Your task to perform on an android device: delete a single message in the gmail app Image 0: 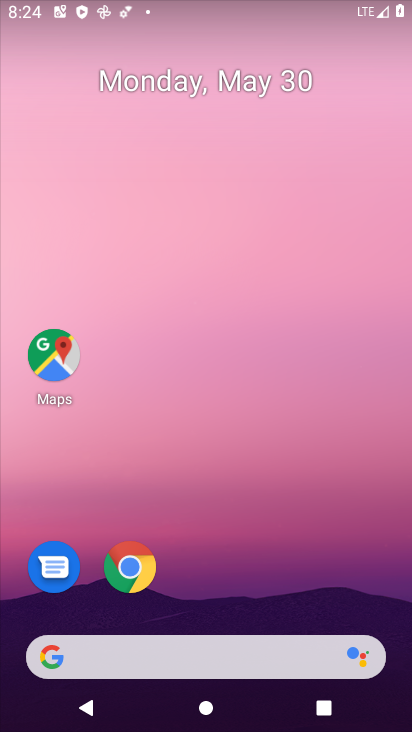
Step 0: drag from (332, 608) to (245, 50)
Your task to perform on an android device: delete a single message in the gmail app Image 1: 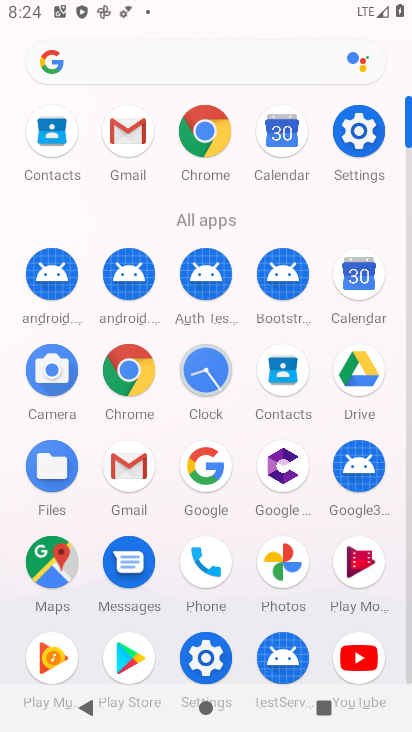
Step 1: click (121, 135)
Your task to perform on an android device: delete a single message in the gmail app Image 2: 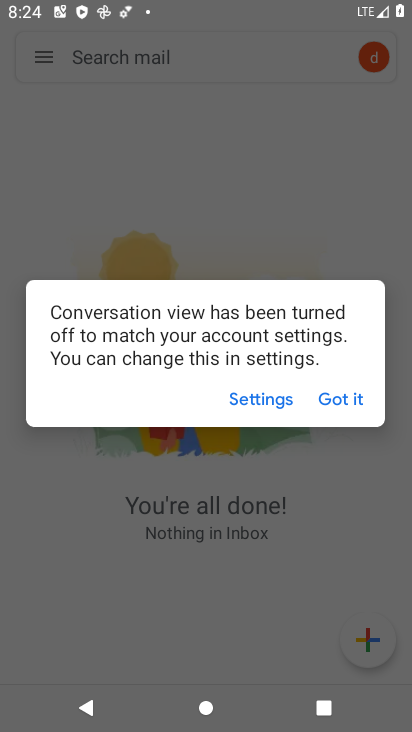
Step 2: click (329, 407)
Your task to perform on an android device: delete a single message in the gmail app Image 3: 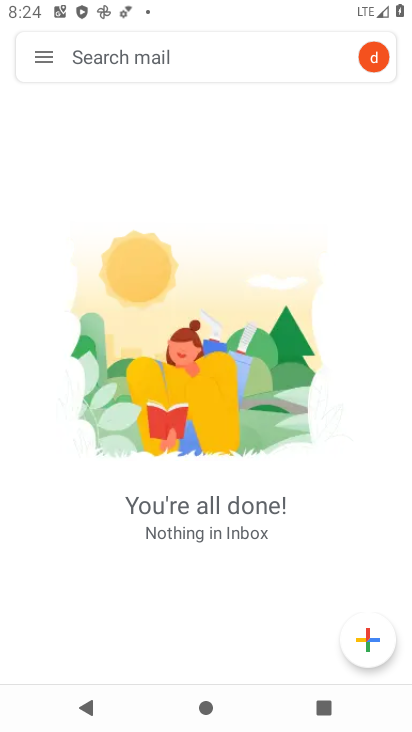
Step 3: task complete